Your task to perform on an android device: see sites visited before in the chrome app Image 0: 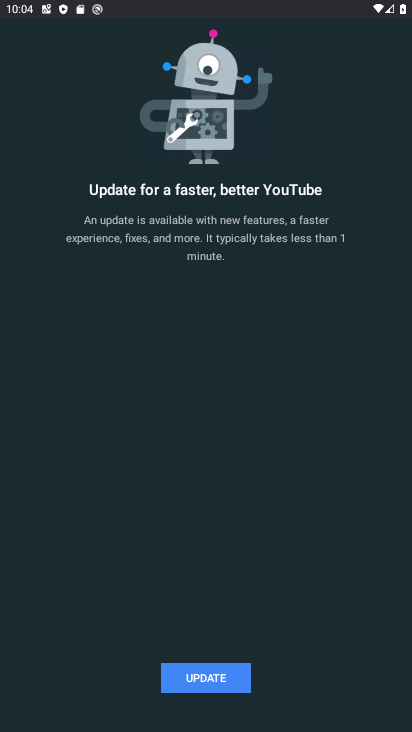
Step 0: press home button
Your task to perform on an android device: see sites visited before in the chrome app Image 1: 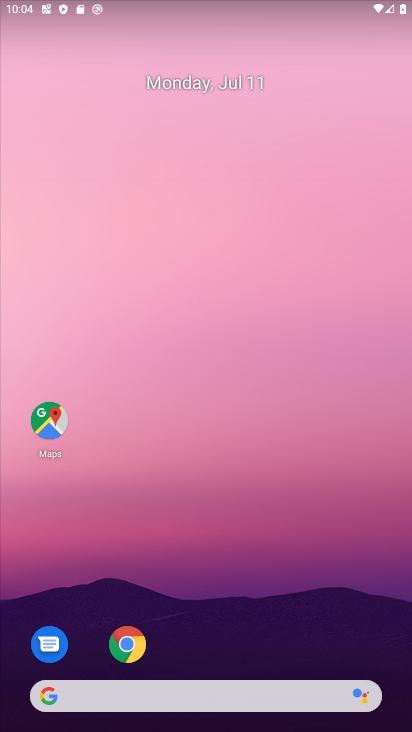
Step 1: click (127, 641)
Your task to perform on an android device: see sites visited before in the chrome app Image 2: 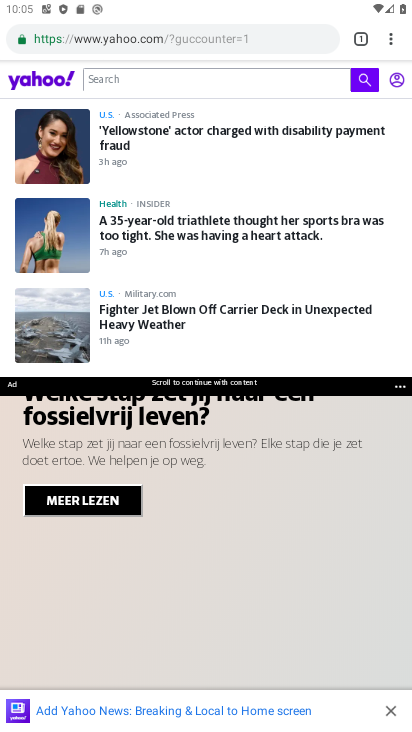
Step 2: click (385, 36)
Your task to perform on an android device: see sites visited before in the chrome app Image 3: 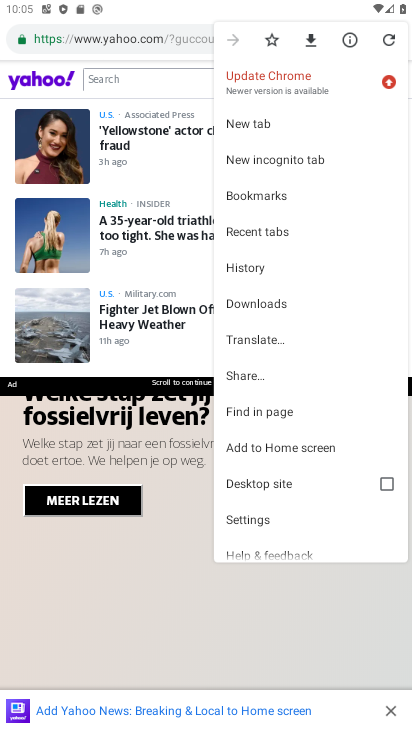
Step 3: click (274, 267)
Your task to perform on an android device: see sites visited before in the chrome app Image 4: 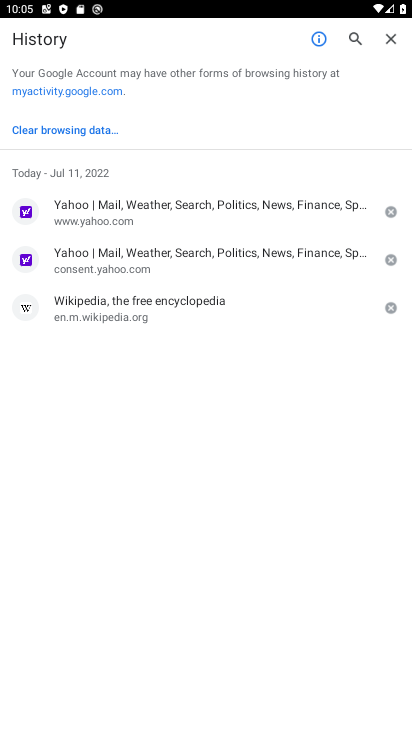
Step 4: task complete